Your task to perform on an android device: turn notification dots off Image 0: 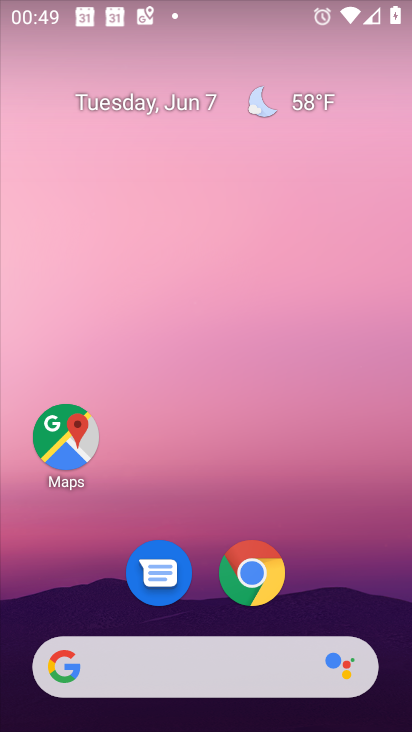
Step 0: press home button
Your task to perform on an android device: turn notification dots off Image 1: 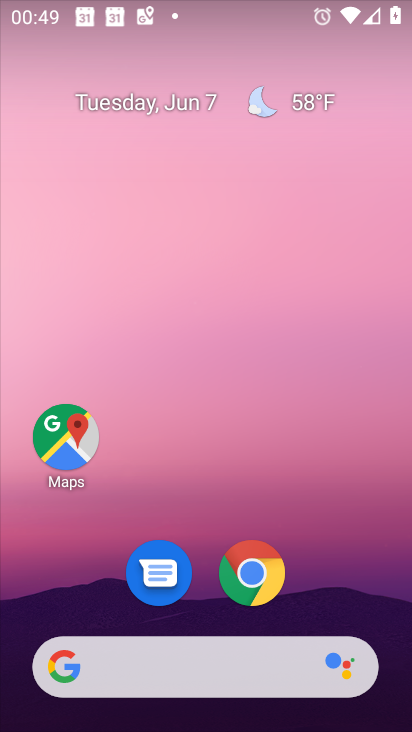
Step 1: drag from (389, 548) to (388, 54)
Your task to perform on an android device: turn notification dots off Image 2: 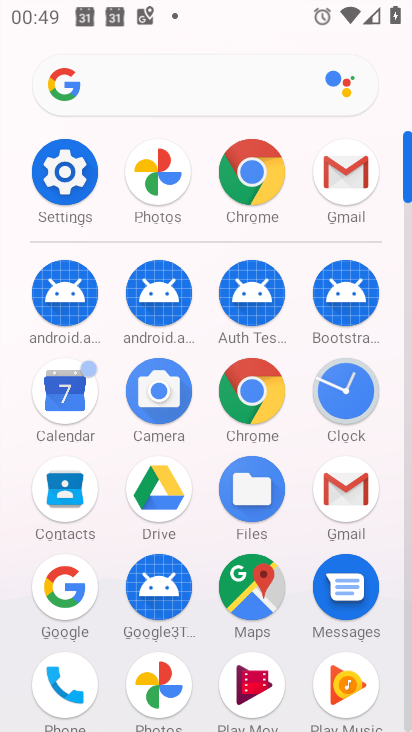
Step 2: click (91, 180)
Your task to perform on an android device: turn notification dots off Image 3: 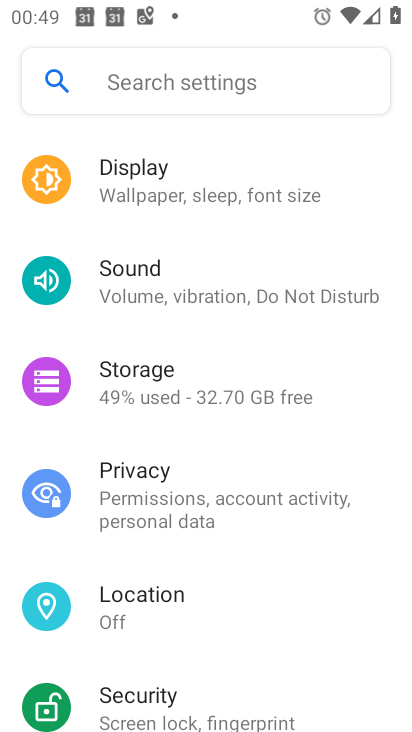
Step 3: drag from (215, 183) to (209, 567)
Your task to perform on an android device: turn notification dots off Image 4: 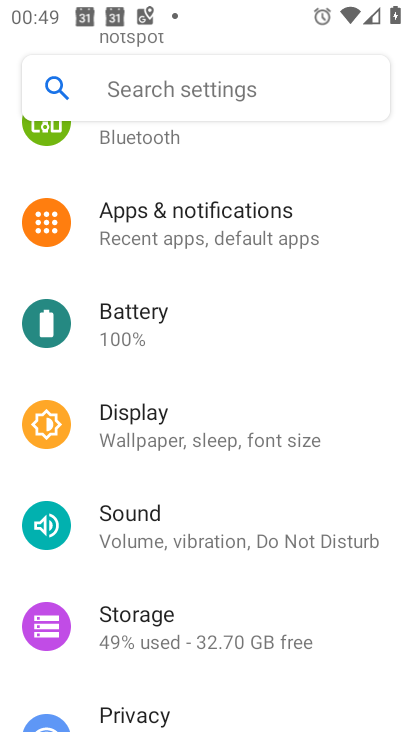
Step 4: click (180, 226)
Your task to perform on an android device: turn notification dots off Image 5: 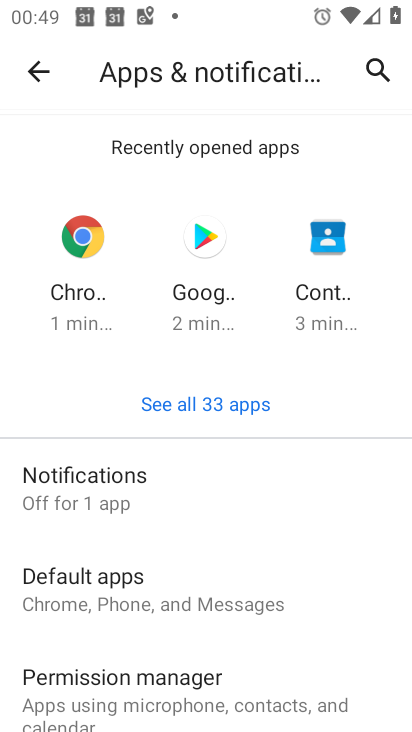
Step 5: click (101, 503)
Your task to perform on an android device: turn notification dots off Image 6: 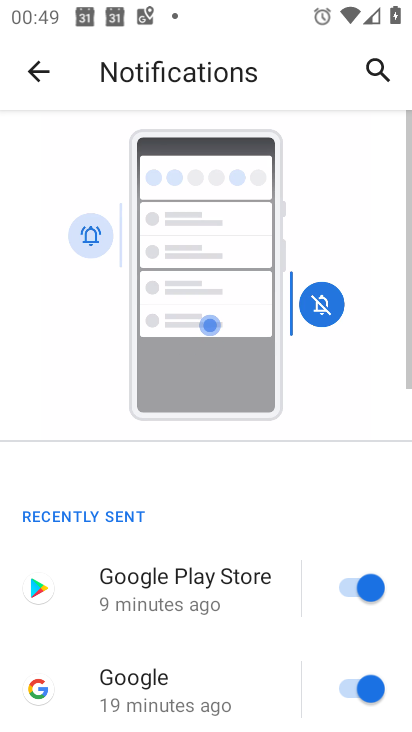
Step 6: drag from (169, 619) to (133, 334)
Your task to perform on an android device: turn notification dots off Image 7: 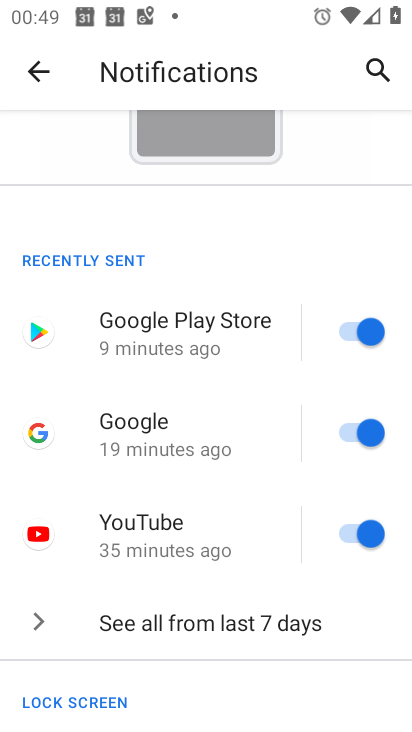
Step 7: drag from (187, 601) to (193, 93)
Your task to perform on an android device: turn notification dots off Image 8: 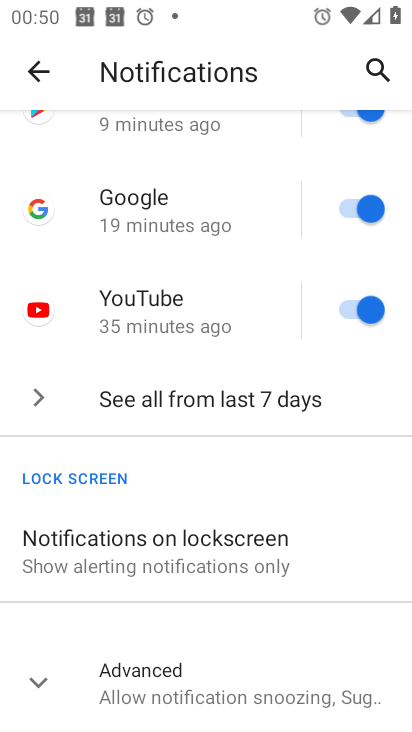
Step 8: click (187, 673)
Your task to perform on an android device: turn notification dots off Image 9: 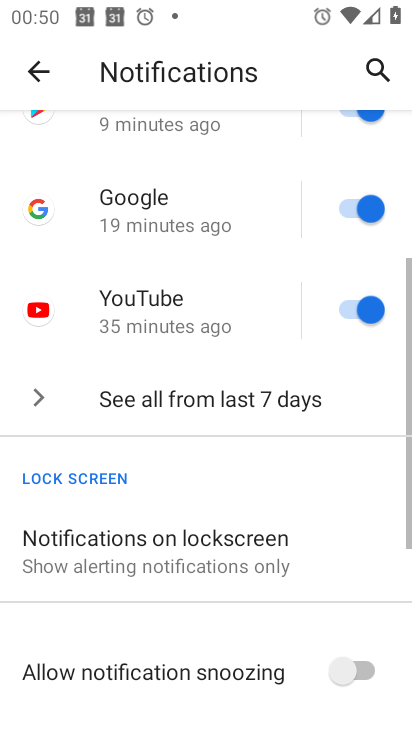
Step 9: drag from (290, 627) to (298, 73)
Your task to perform on an android device: turn notification dots off Image 10: 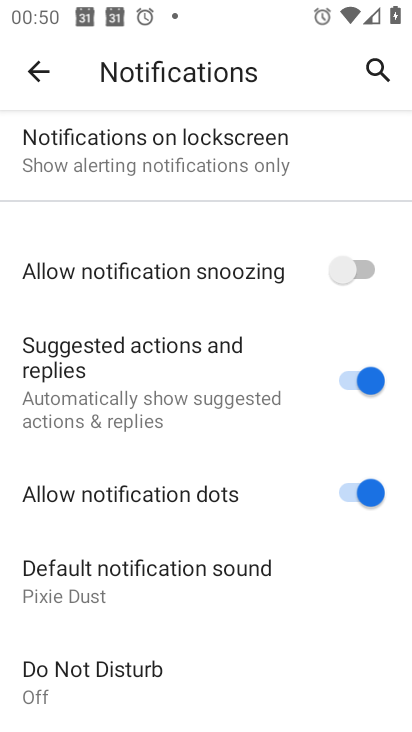
Step 10: click (267, 508)
Your task to perform on an android device: turn notification dots off Image 11: 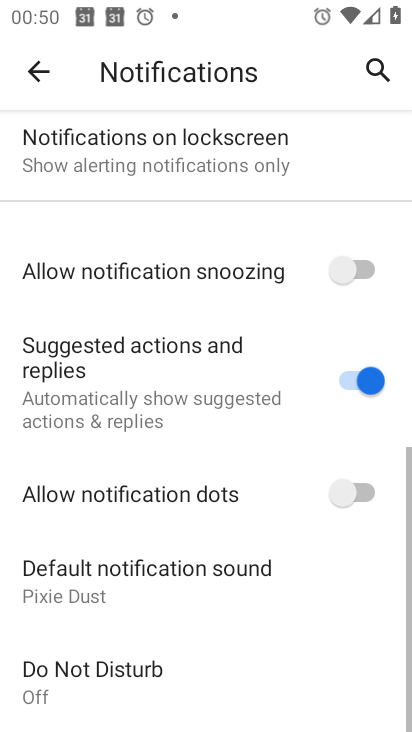
Step 11: task complete